Your task to perform on an android device: toggle airplane mode Image 0: 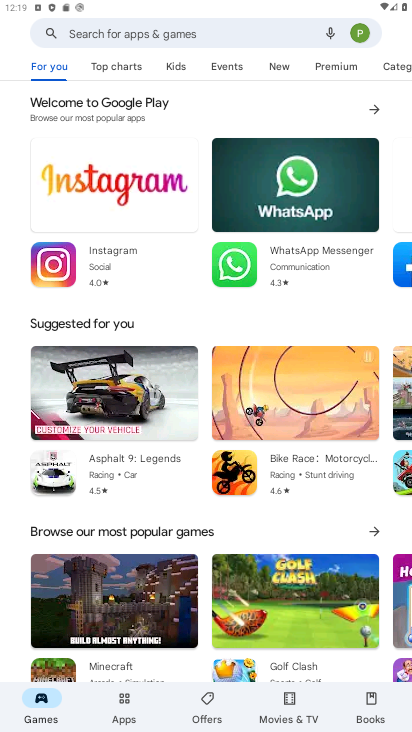
Step 0: press home button
Your task to perform on an android device: toggle airplane mode Image 1: 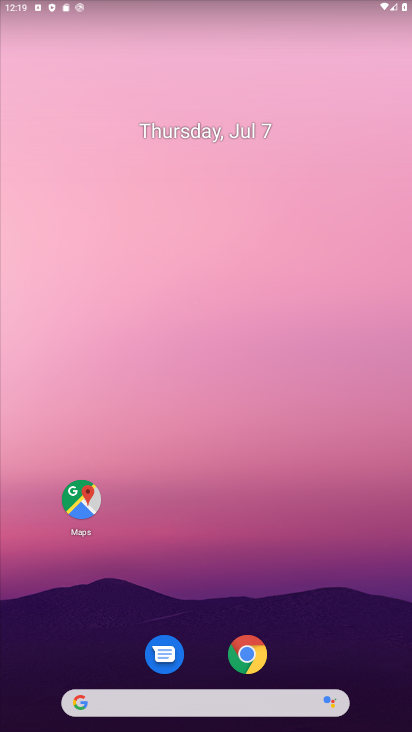
Step 1: drag from (110, 7) to (170, 611)
Your task to perform on an android device: toggle airplane mode Image 2: 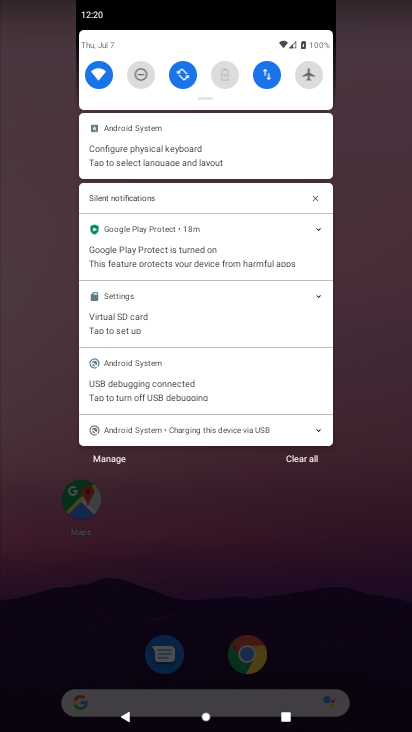
Step 2: click (313, 72)
Your task to perform on an android device: toggle airplane mode Image 3: 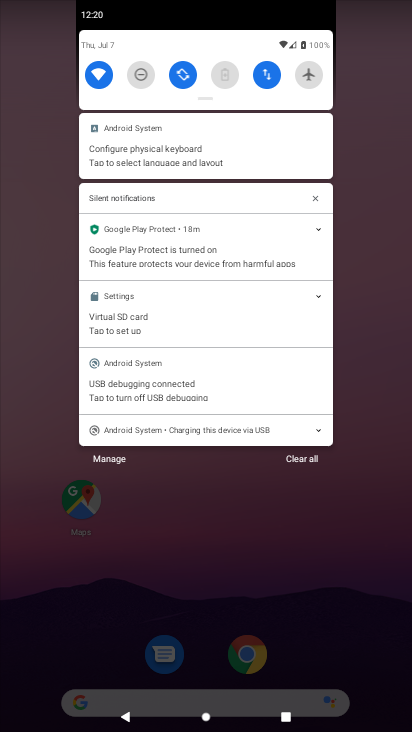
Step 3: click (313, 72)
Your task to perform on an android device: toggle airplane mode Image 4: 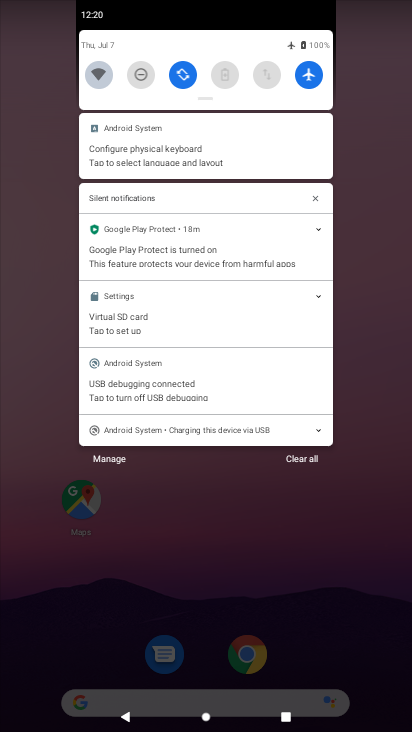
Step 4: click (313, 72)
Your task to perform on an android device: toggle airplane mode Image 5: 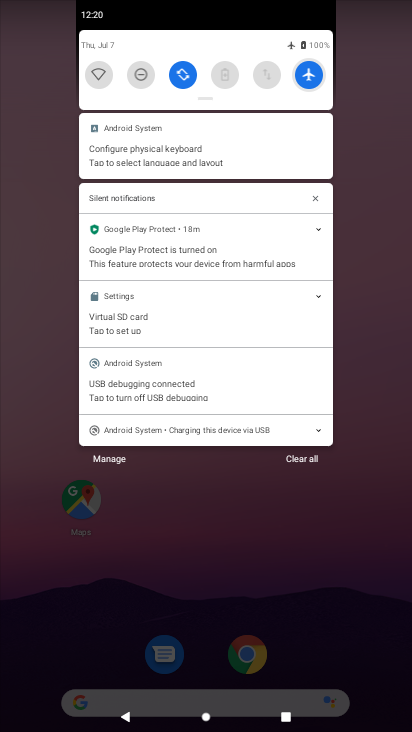
Step 5: click (313, 72)
Your task to perform on an android device: toggle airplane mode Image 6: 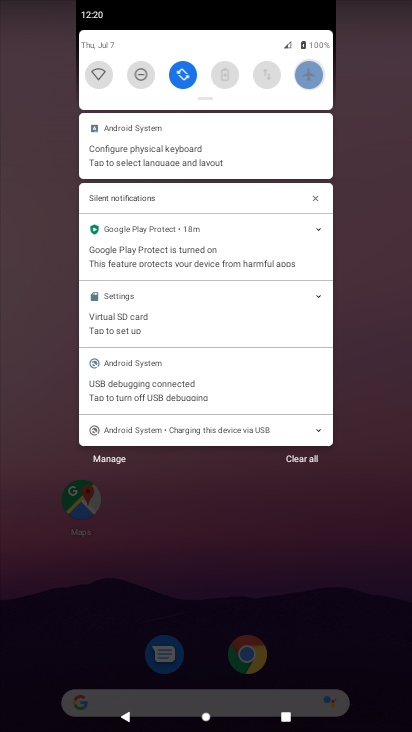
Step 6: click (313, 72)
Your task to perform on an android device: toggle airplane mode Image 7: 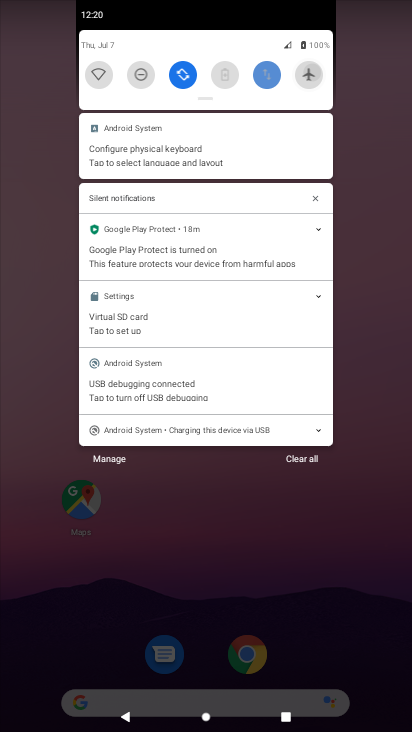
Step 7: click (313, 72)
Your task to perform on an android device: toggle airplane mode Image 8: 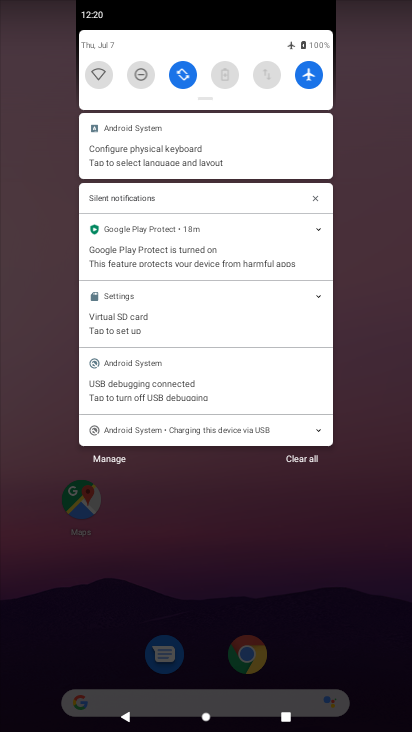
Step 8: click (313, 72)
Your task to perform on an android device: toggle airplane mode Image 9: 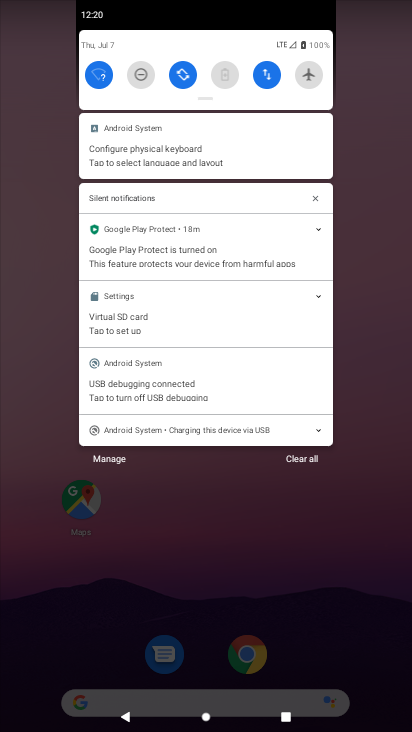
Step 9: task complete